Your task to perform on an android device: Open Reddit.com Image 0: 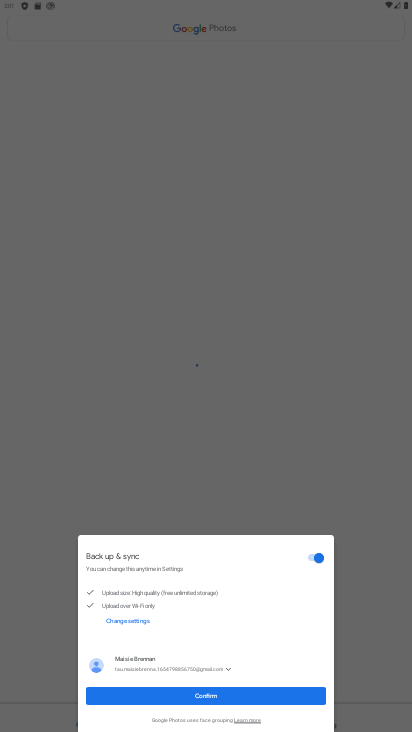
Step 0: press home button
Your task to perform on an android device: Open Reddit.com Image 1: 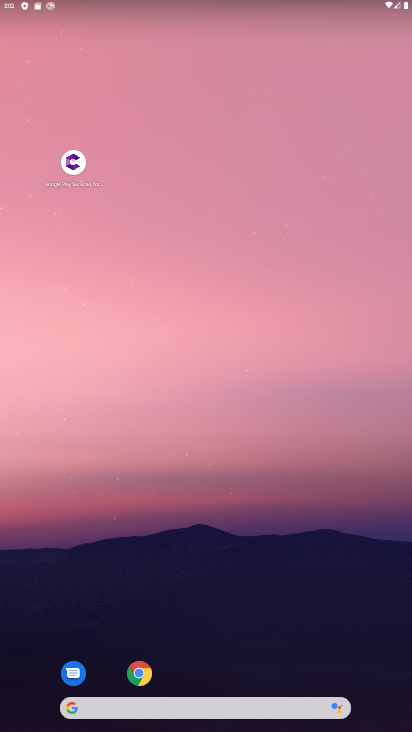
Step 1: click (169, 707)
Your task to perform on an android device: Open Reddit.com Image 2: 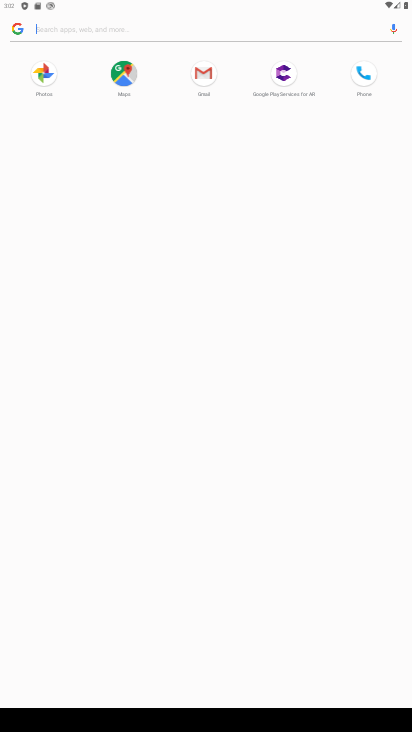
Step 2: type "Reddit.com"
Your task to perform on an android device: Open Reddit.com Image 3: 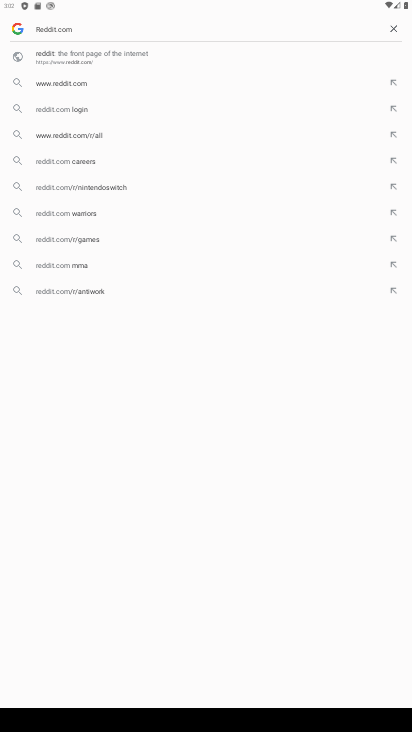
Step 3: click (144, 53)
Your task to perform on an android device: Open Reddit.com Image 4: 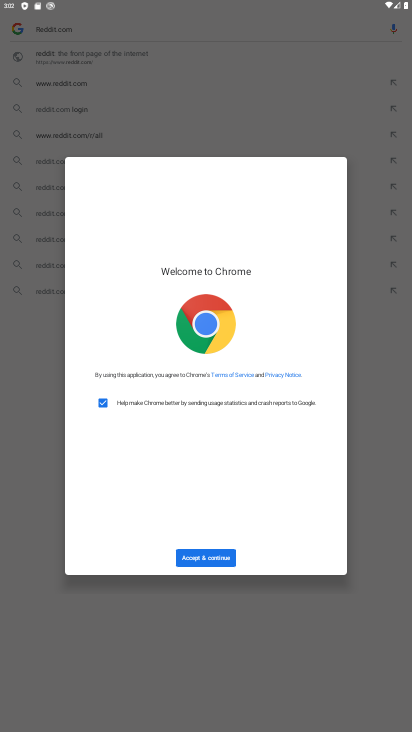
Step 4: click (215, 555)
Your task to perform on an android device: Open Reddit.com Image 5: 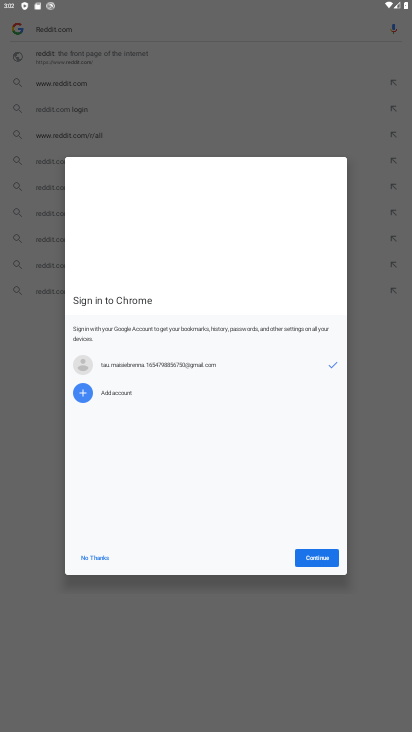
Step 5: click (312, 555)
Your task to perform on an android device: Open Reddit.com Image 6: 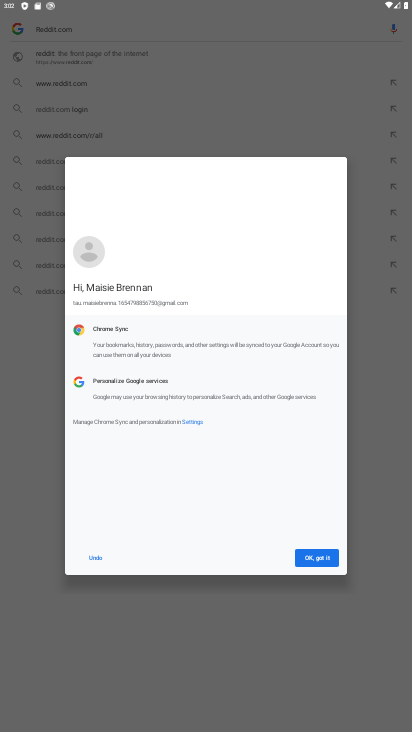
Step 6: click (317, 554)
Your task to perform on an android device: Open Reddit.com Image 7: 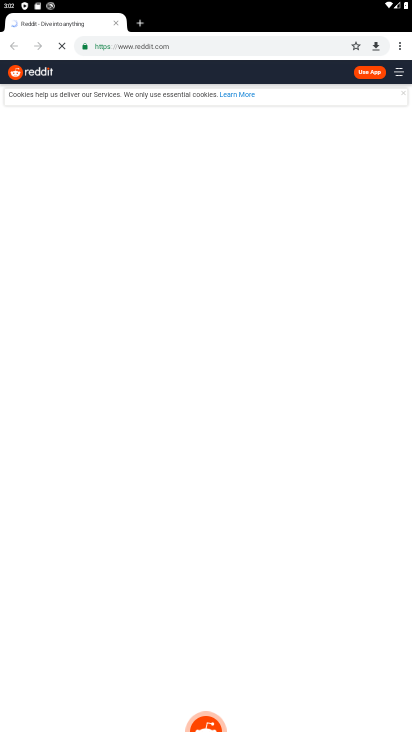
Step 7: task complete